Your task to perform on an android device: Show me popular videos on Youtube Image 0: 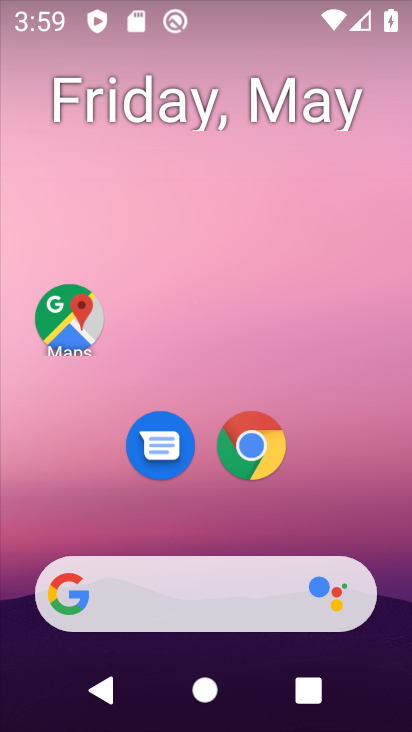
Step 0: drag from (221, 492) to (240, 136)
Your task to perform on an android device: Show me popular videos on Youtube Image 1: 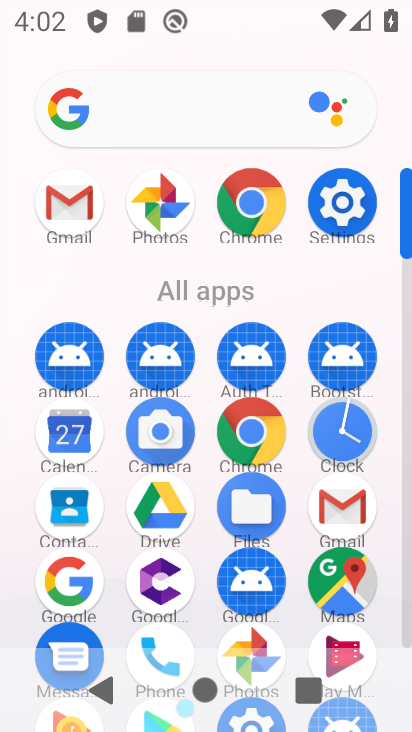
Step 1: drag from (289, 523) to (335, 18)
Your task to perform on an android device: Show me popular videos on Youtube Image 2: 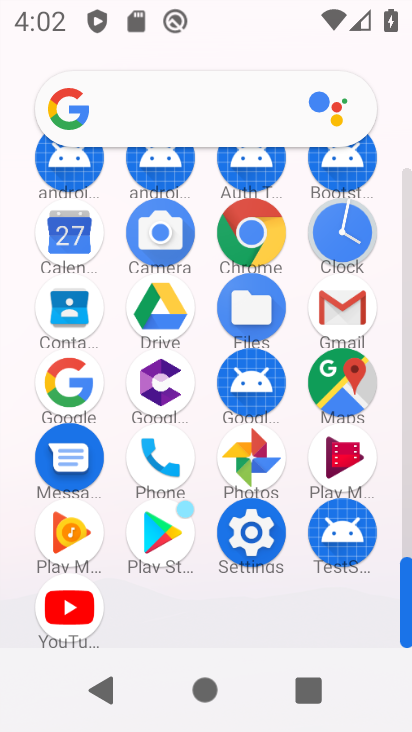
Step 2: click (68, 616)
Your task to perform on an android device: Show me popular videos on Youtube Image 3: 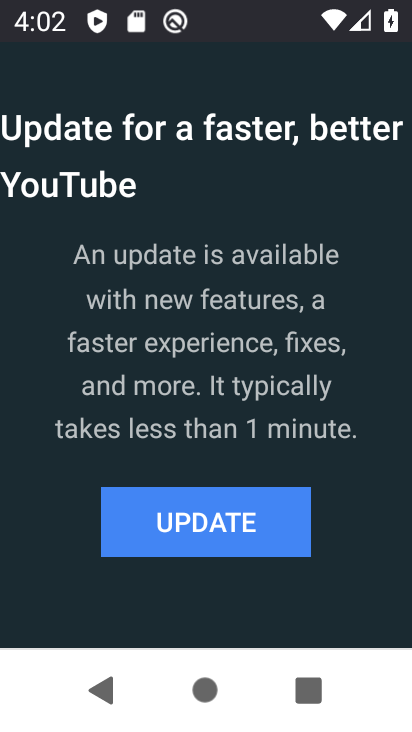
Step 3: click (217, 518)
Your task to perform on an android device: Show me popular videos on Youtube Image 4: 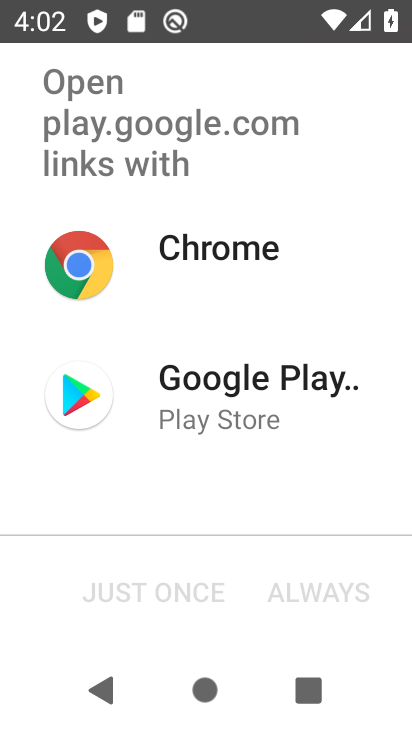
Step 4: click (259, 396)
Your task to perform on an android device: Show me popular videos on Youtube Image 5: 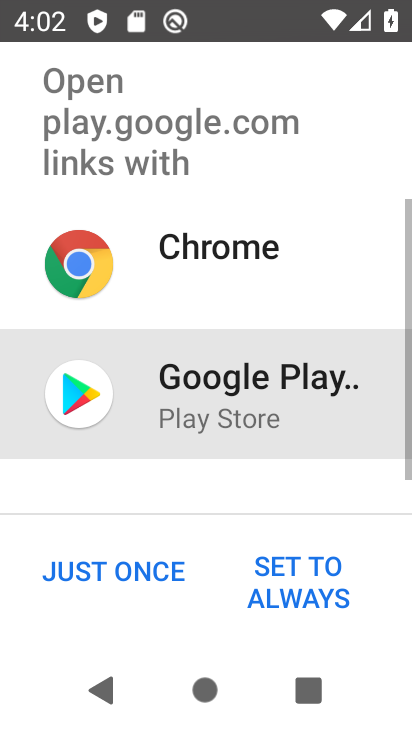
Step 5: click (107, 583)
Your task to perform on an android device: Show me popular videos on Youtube Image 6: 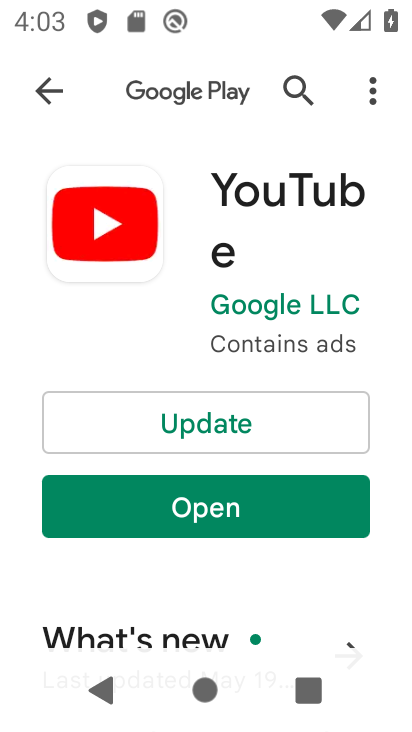
Step 6: click (198, 431)
Your task to perform on an android device: Show me popular videos on Youtube Image 7: 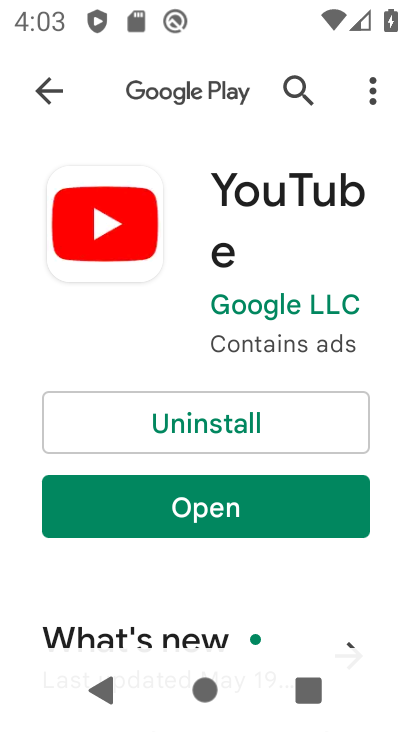
Step 7: click (206, 511)
Your task to perform on an android device: Show me popular videos on Youtube Image 8: 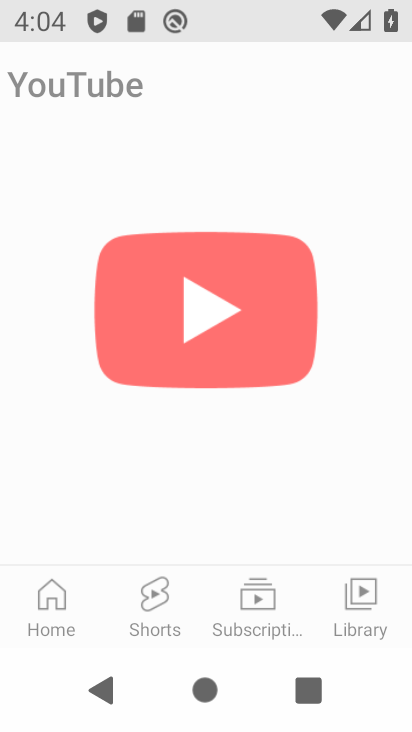
Step 8: task complete